Your task to perform on an android device: Show me popular games on the Play Store Image 0: 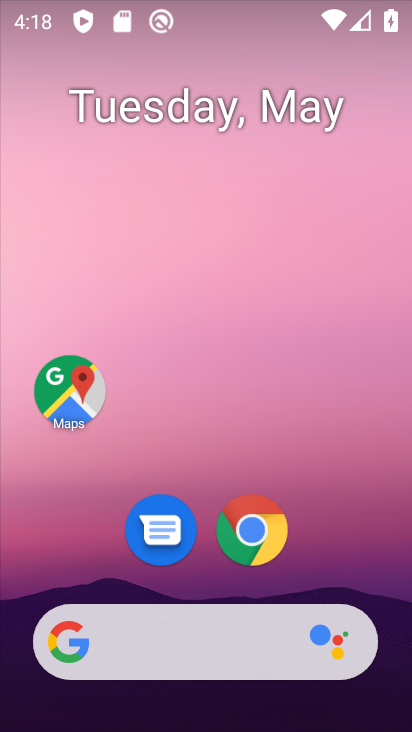
Step 0: drag from (400, 600) to (303, 160)
Your task to perform on an android device: Show me popular games on the Play Store Image 1: 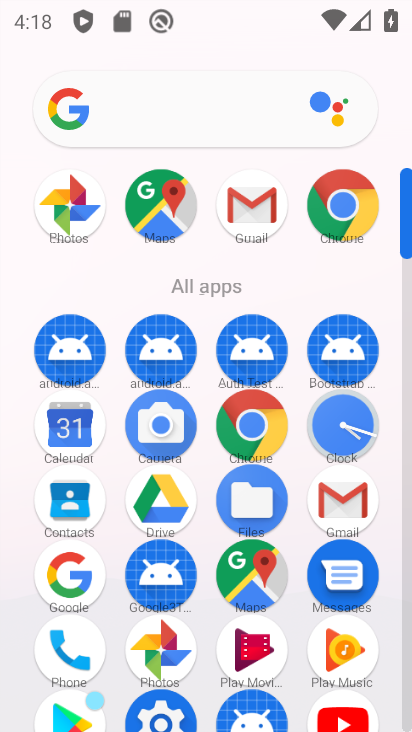
Step 1: click (406, 703)
Your task to perform on an android device: Show me popular games on the Play Store Image 2: 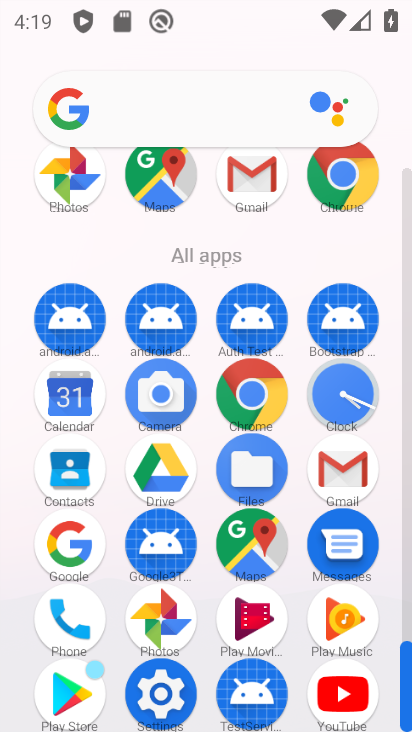
Step 2: click (52, 696)
Your task to perform on an android device: Show me popular games on the Play Store Image 3: 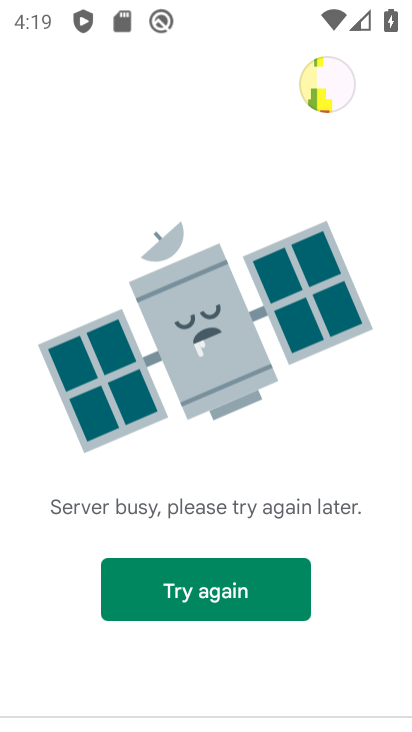
Step 3: task complete